Your task to perform on an android device: Open Google Chrome and open the bookmarks view Image 0: 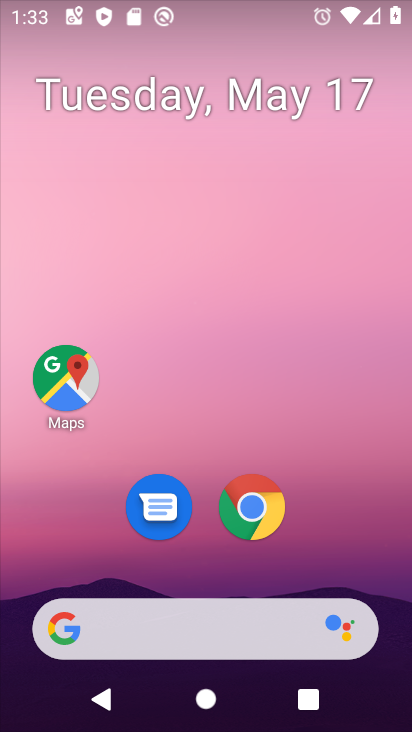
Step 0: click (261, 506)
Your task to perform on an android device: Open Google Chrome and open the bookmarks view Image 1: 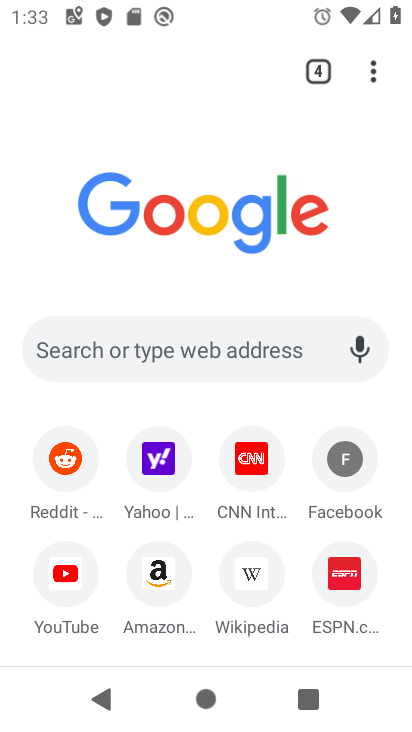
Step 1: click (373, 62)
Your task to perform on an android device: Open Google Chrome and open the bookmarks view Image 2: 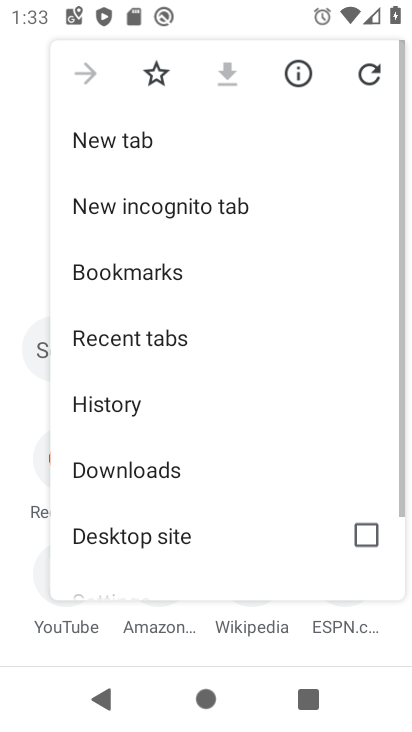
Step 2: click (161, 255)
Your task to perform on an android device: Open Google Chrome and open the bookmarks view Image 3: 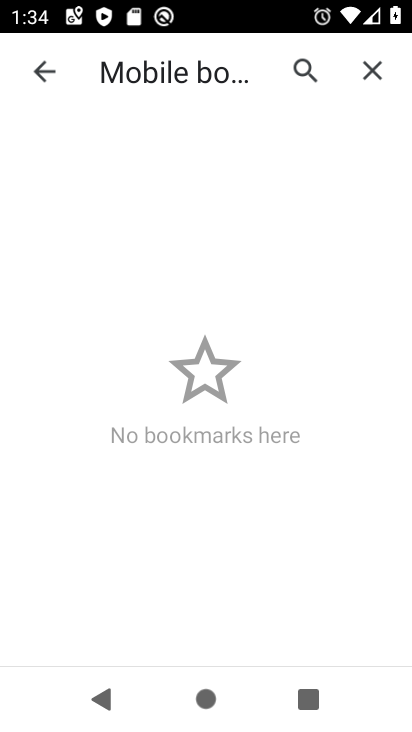
Step 3: task complete